Your task to perform on an android device: Open Chrome and go to settings Image 0: 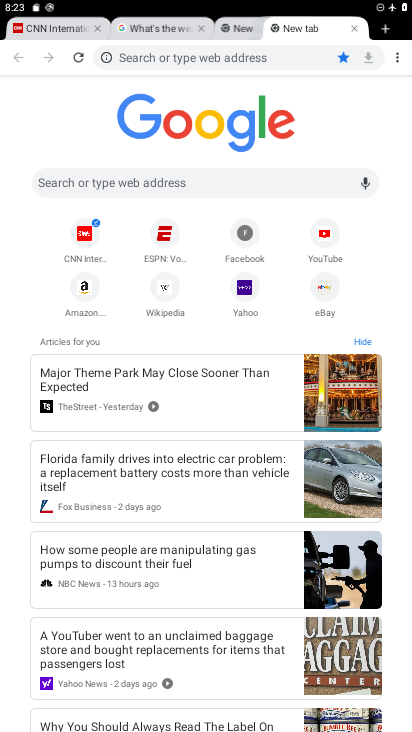
Step 0: click (396, 56)
Your task to perform on an android device: Open Chrome and go to settings Image 1: 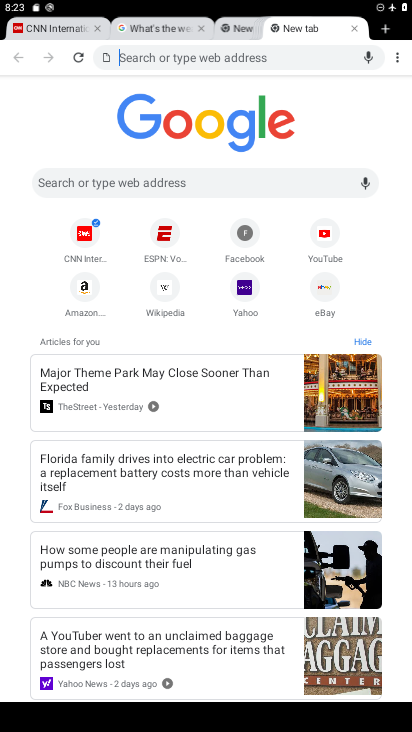
Step 1: click (400, 53)
Your task to perform on an android device: Open Chrome and go to settings Image 2: 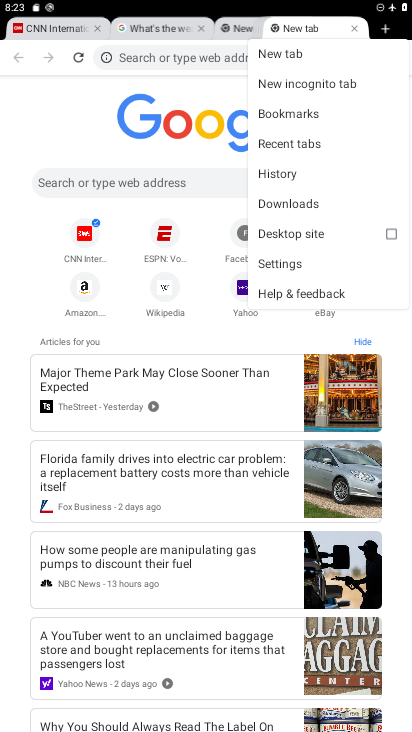
Step 2: click (302, 257)
Your task to perform on an android device: Open Chrome and go to settings Image 3: 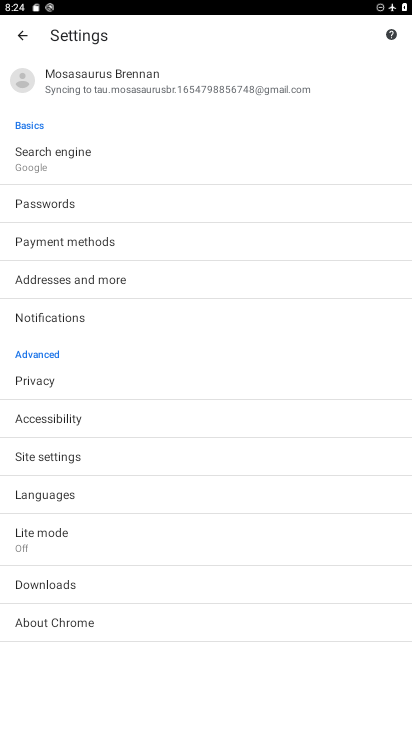
Step 3: task complete